Your task to perform on an android device: open chrome privacy settings Image 0: 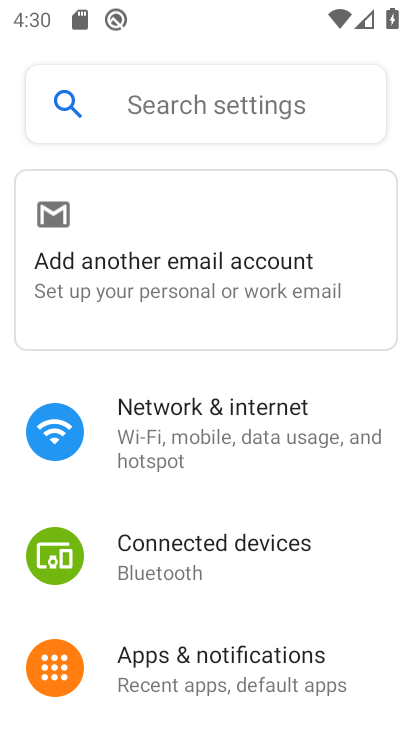
Step 0: press home button
Your task to perform on an android device: open chrome privacy settings Image 1: 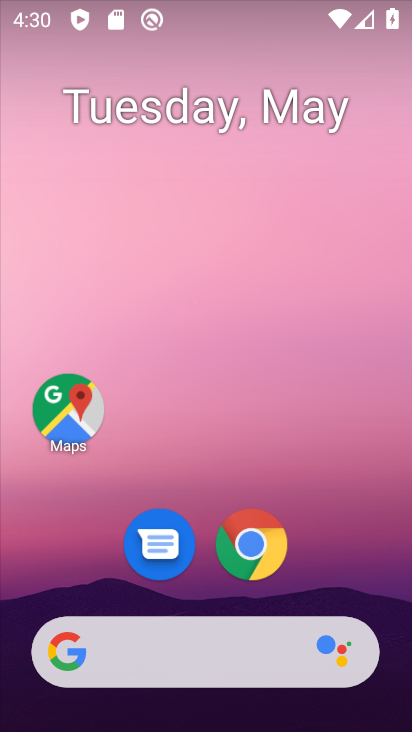
Step 1: click (260, 565)
Your task to perform on an android device: open chrome privacy settings Image 2: 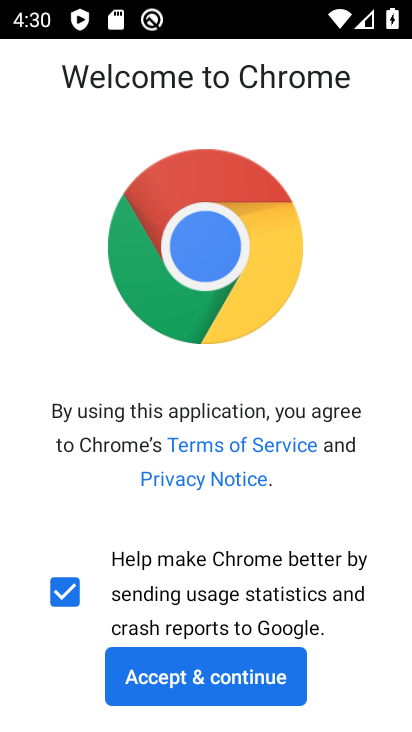
Step 2: click (236, 694)
Your task to perform on an android device: open chrome privacy settings Image 3: 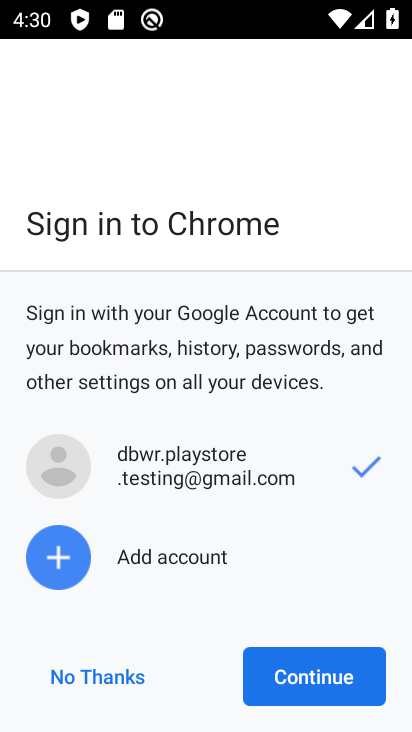
Step 3: click (269, 687)
Your task to perform on an android device: open chrome privacy settings Image 4: 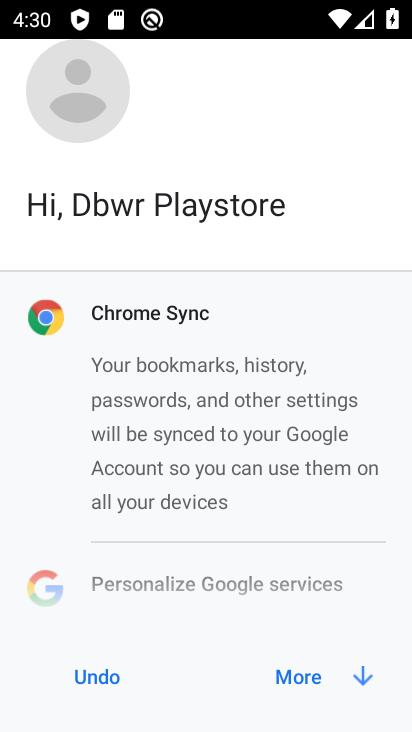
Step 4: click (290, 679)
Your task to perform on an android device: open chrome privacy settings Image 5: 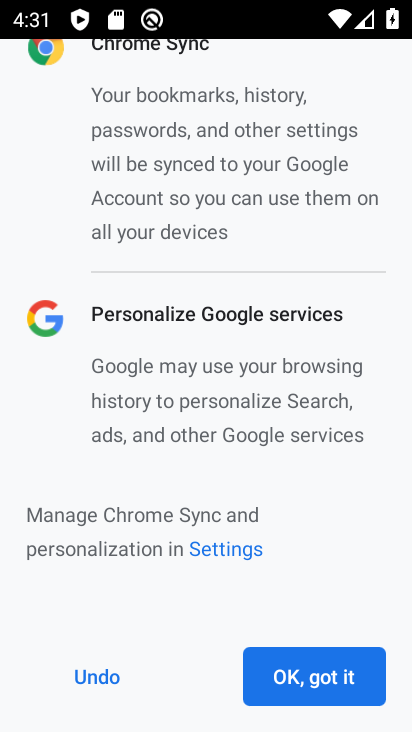
Step 5: click (290, 679)
Your task to perform on an android device: open chrome privacy settings Image 6: 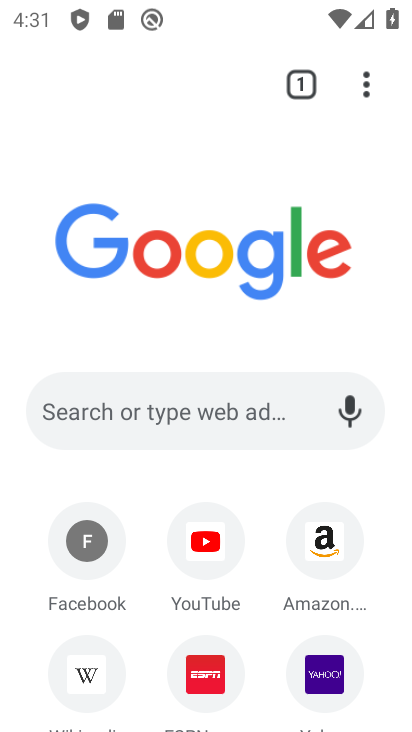
Step 6: click (368, 98)
Your task to perform on an android device: open chrome privacy settings Image 7: 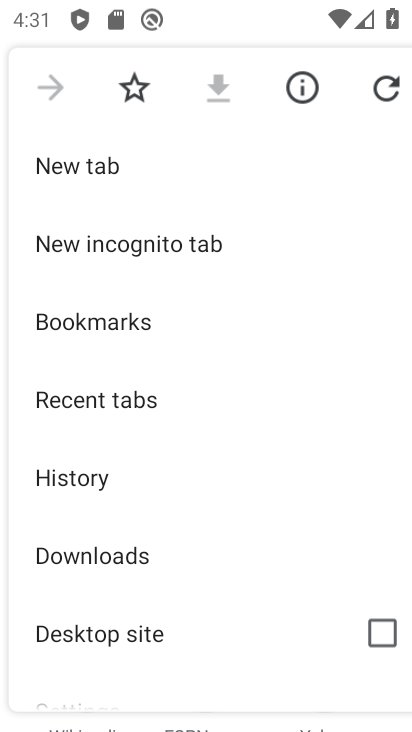
Step 7: drag from (172, 609) to (136, 268)
Your task to perform on an android device: open chrome privacy settings Image 8: 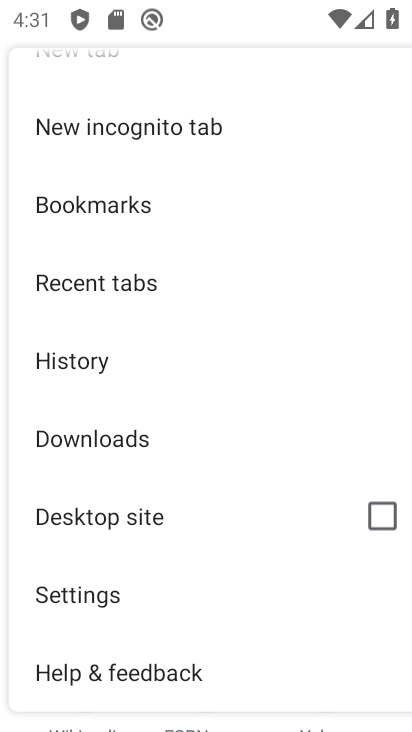
Step 8: click (147, 609)
Your task to perform on an android device: open chrome privacy settings Image 9: 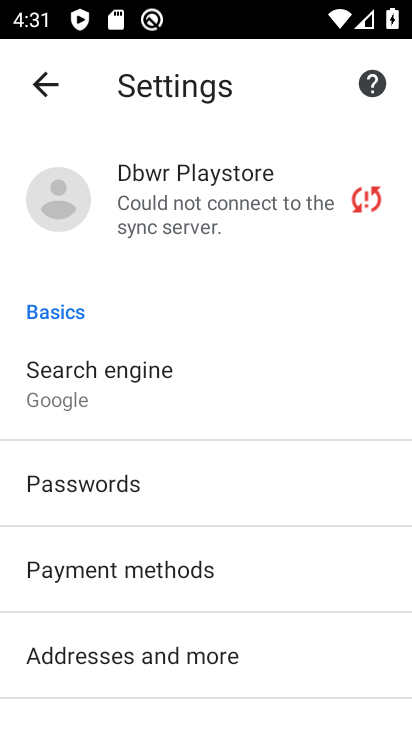
Step 9: drag from (218, 701) to (206, 373)
Your task to perform on an android device: open chrome privacy settings Image 10: 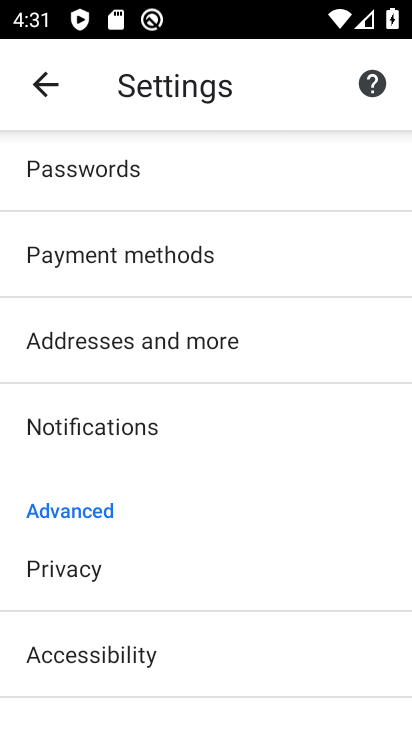
Step 10: click (156, 558)
Your task to perform on an android device: open chrome privacy settings Image 11: 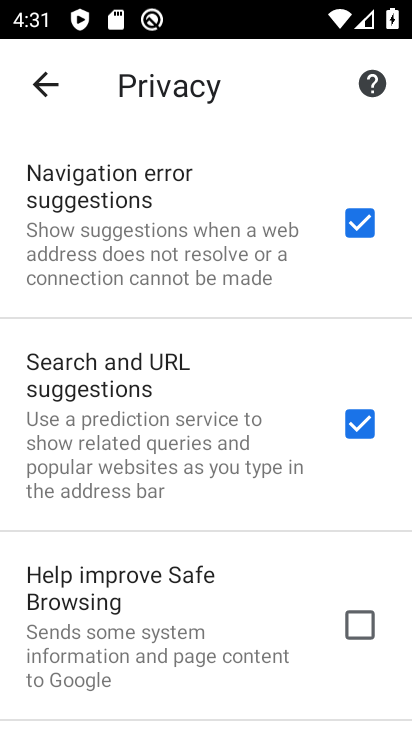
Step 11: task complete